Your task to perform on an android device: turn off improve location accuracy Image 0: 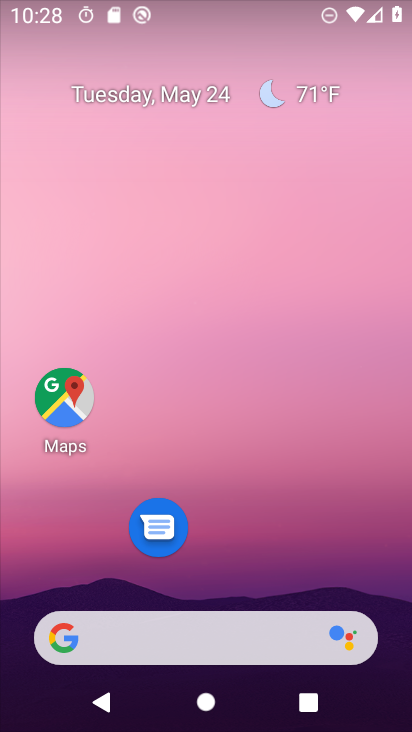
Step 0: drag from (209, 568) to (238, 68)
Your task to perform on an android device: turn off improve location accuracy Image 1: 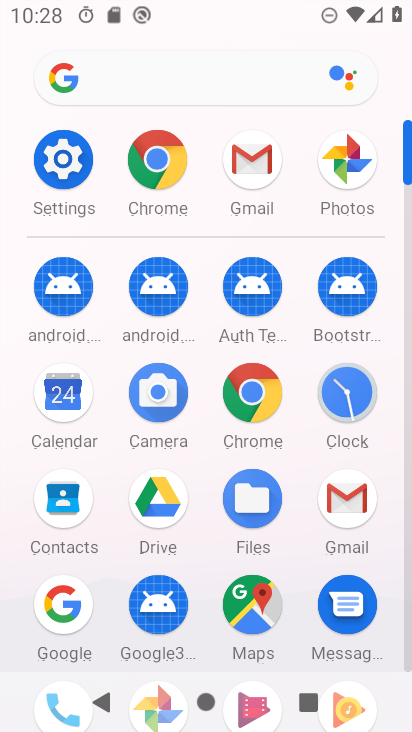
Step 1: click (60, 158)
Your task to perform on an android device: turn off improve location accuracy Image 2: 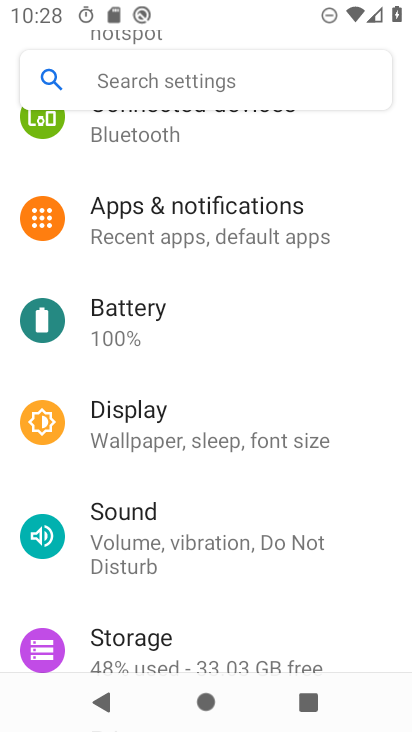
Step 2: drag from (246, 606) to (262, 127)
Your task to perform on an android device: turn off improve location accuracy Image 3: 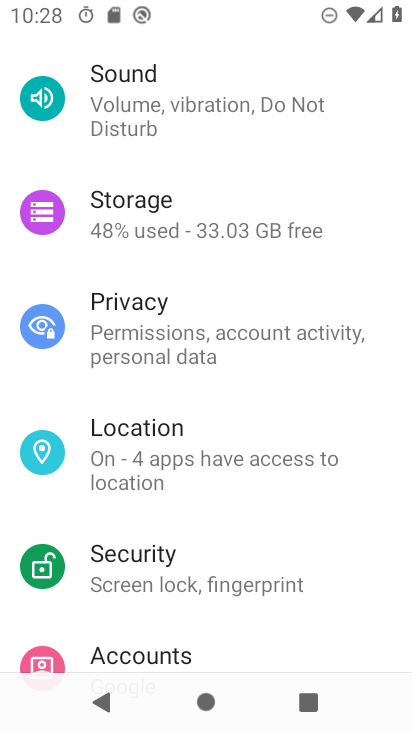
Step 3: click (123, 433)
Your task to perform on an android device: turn off improve location accuracy Image 4: 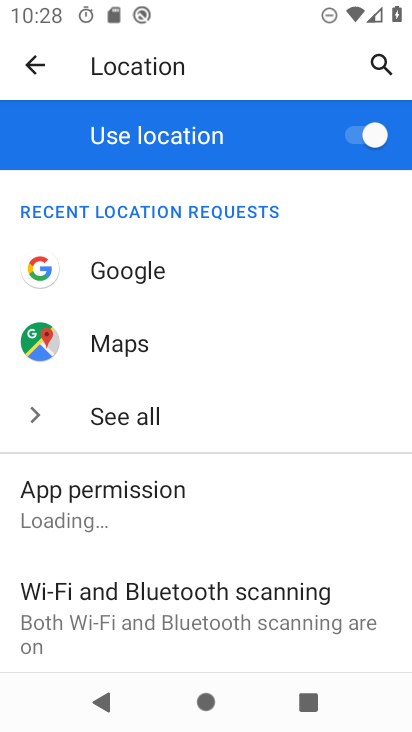
Step 4: drag from (246, 580) to (300, 130)
Your task to perform on an android device: turn off improve location accuracy Image 5: 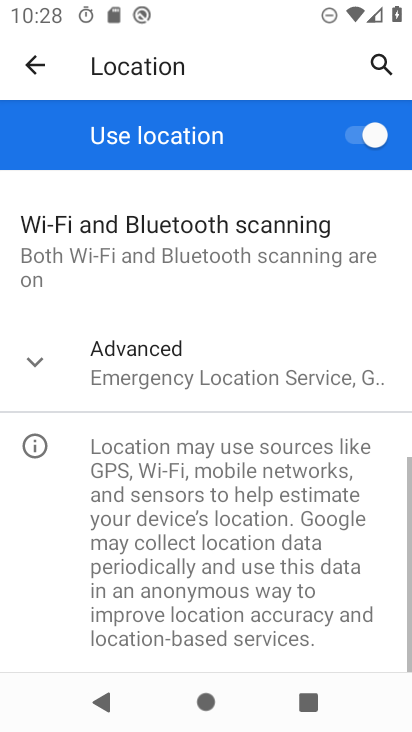
Step 5: click (126, 366)
Your task to perform on an android device: turn off improve location accuracy Image 6: 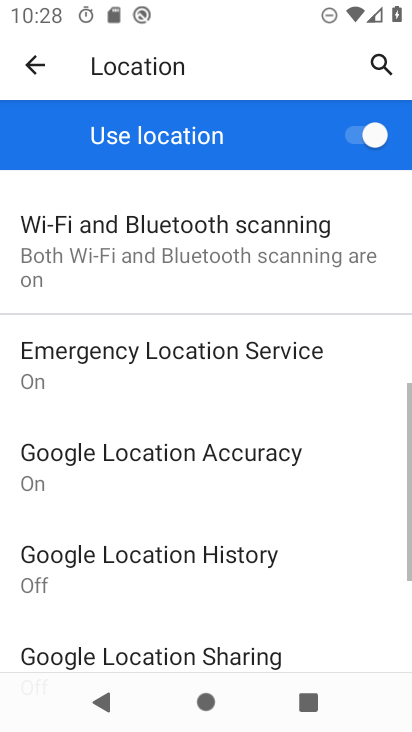
Step 6: click (178, 466)
Your task to perform on an android device: turn off improve location accuracy Image 7: 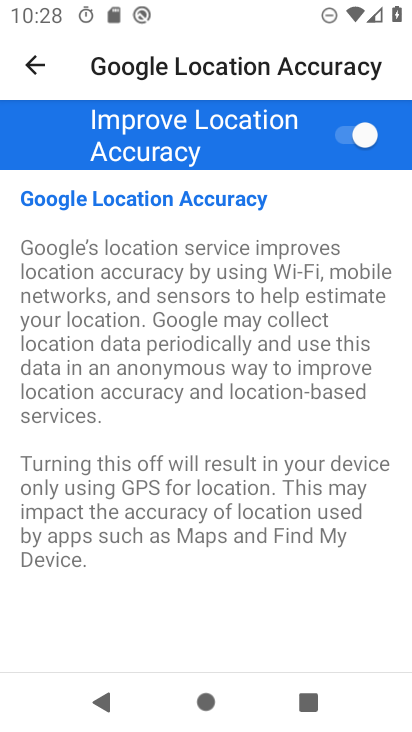
Step 7: click (361, 134)
Your task to perform on an android device: turn off improve location accuracy Image 8: 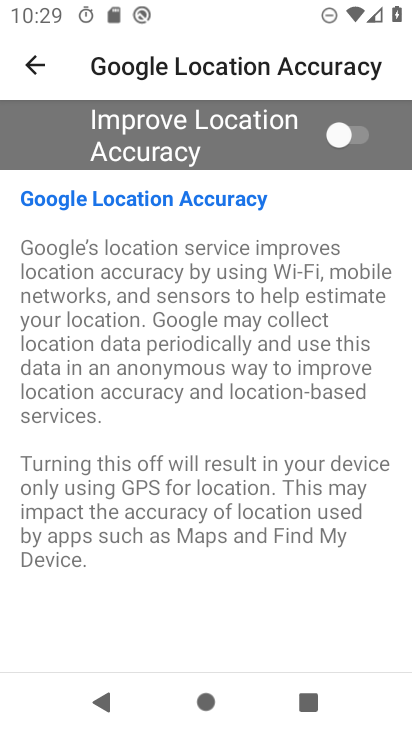
Step 8: task complete